Your task to perform on an android device: toggle airplane mode Image 0: 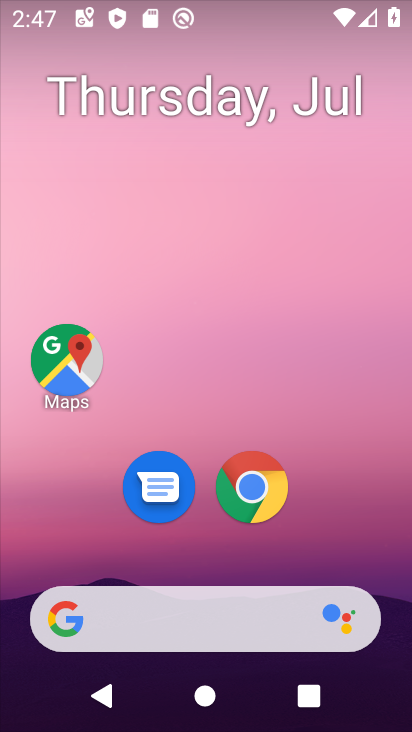
Step 0: drag from (364, 533) to (354, 144)
Your task to perform on an android device: toggle airplane mode Image 1: 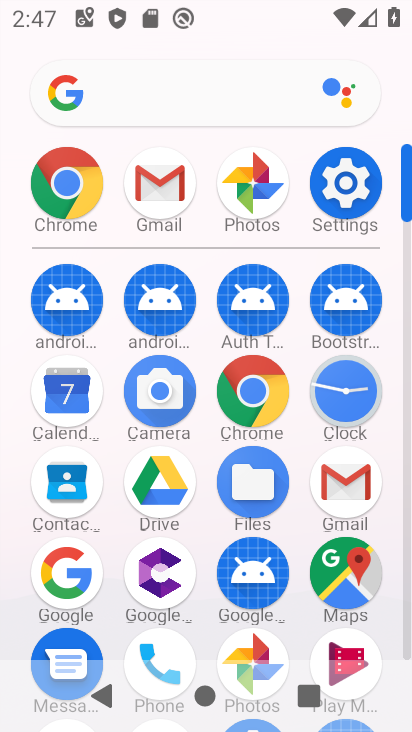
Step 1: click (345, 180)
Your task to perform on an android device: toggle airplane mode Image 2: 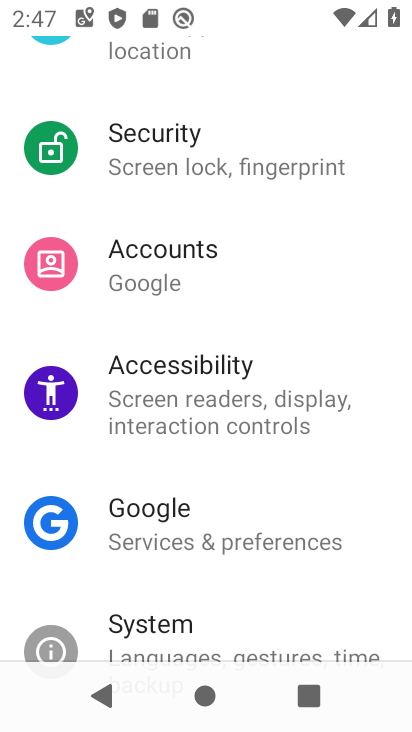
Step 2: drag from (361, 322) to (364, 368)
Your task to perform on an android device: toggle airplane mode Image 3: 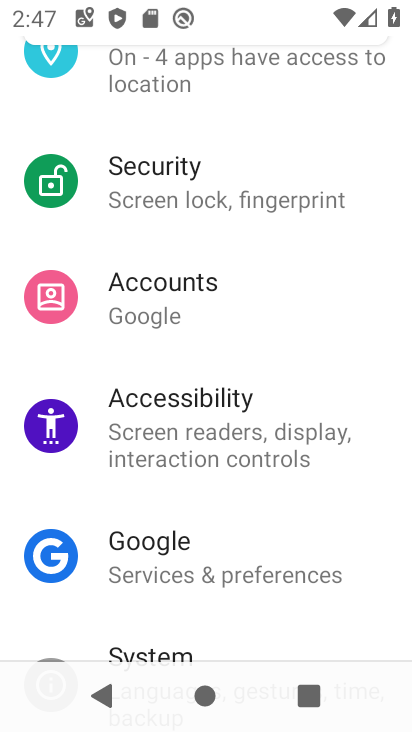
Step 3: drag from (360, 324) to (363, 376)
Your task to perform on an android device: toggle airplane mode Image 4: 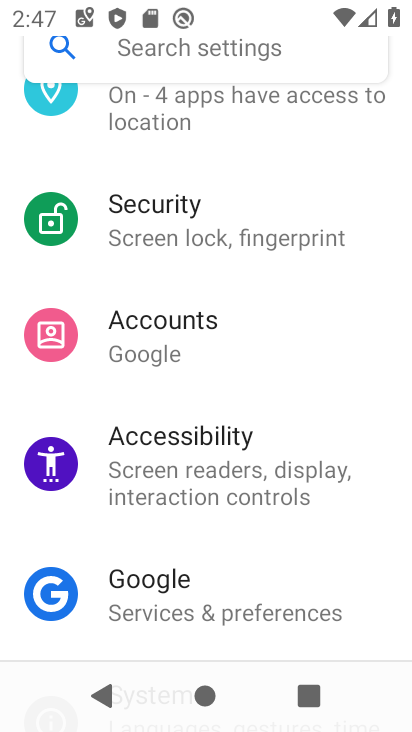
Step 4: drag from (363, 343) to (370, 393)
Your task to perform on an android device: toggle airplane mode Image 5: 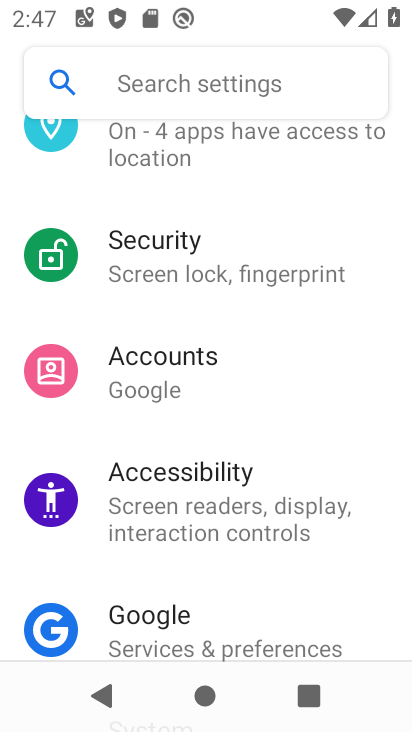
Step 5: drag from (372, 341) to (373, 407)
Your task to perform on an android device: toggle airplane mode Image 6: 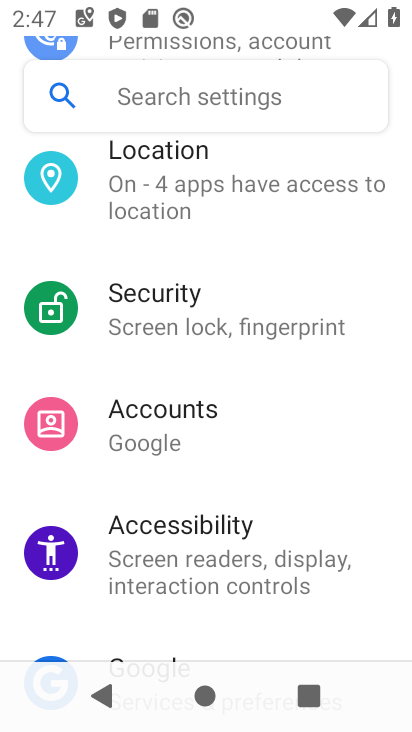
Step 6: drag from (370, 353) to (370, 421)
Your task to perform on an android device: toggle airplane mode Image 7: 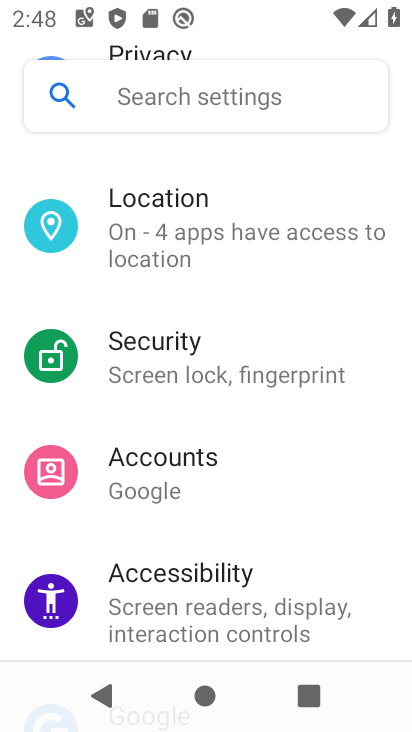
Step 7: drag from (370, 359) to (372, 424)
Your task to perform on an android device: toggle airplane mode Image 8: 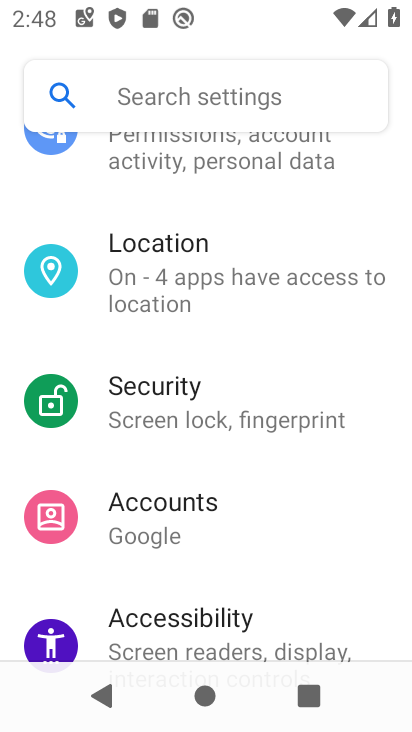
Step 8: drag from (372, 366) to (380, 433)
Your task to perform on an android device: toggle airplane mode Image 9: 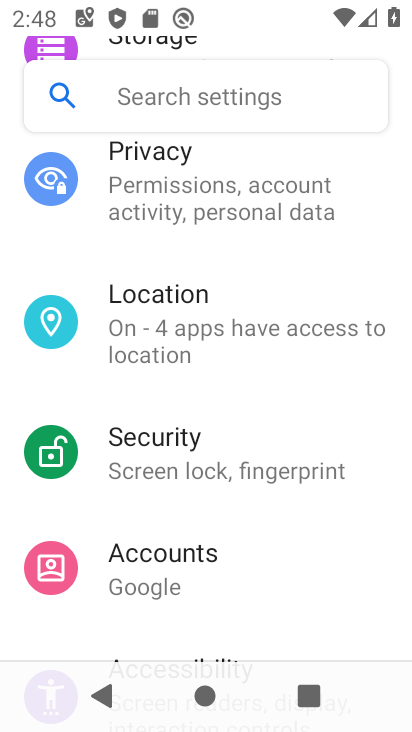
Step 9: drag from (376, 365) to (376, 430)
Your task to perform on an android device: toggle airplane mode Image 10: 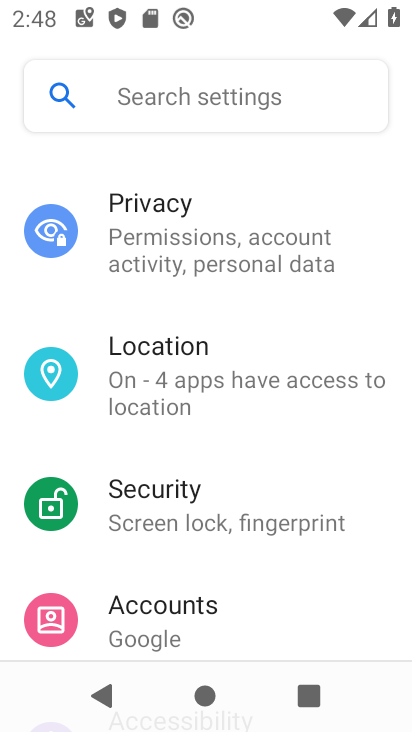
Step 10: drag from (376, 370) to (375, 444)
Your task to perform on an android device: toggle airplane mode Image 11: 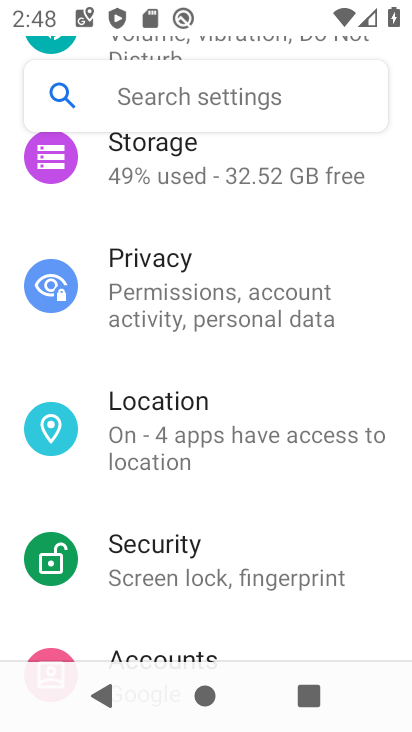
Step 11: drag from (380, 371) to (384, 453)
Your task to perform on an android device: toggle airplane mode Image 12: 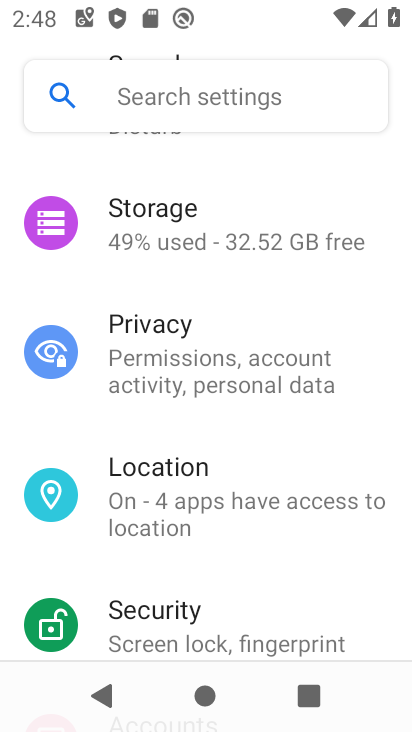
Step 12: drag from (370, 402) to (375, 471)
Your task to perform on an android device: toggle airplane mode Image 13: 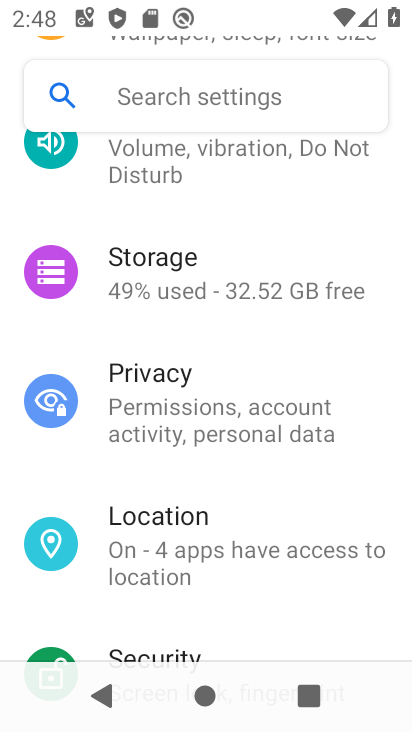
Step 13: drag from (365, 392) to (372, 483)
Your task to perform on an android device: toggle airplane mode Image 14: 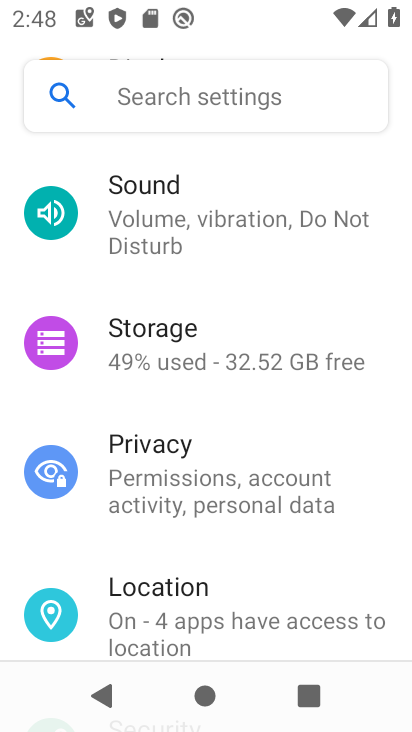
Step 14: drag from (368, 414) to (369, 485)
Your task to perform on an android device: toggle airplane mode Image 15: 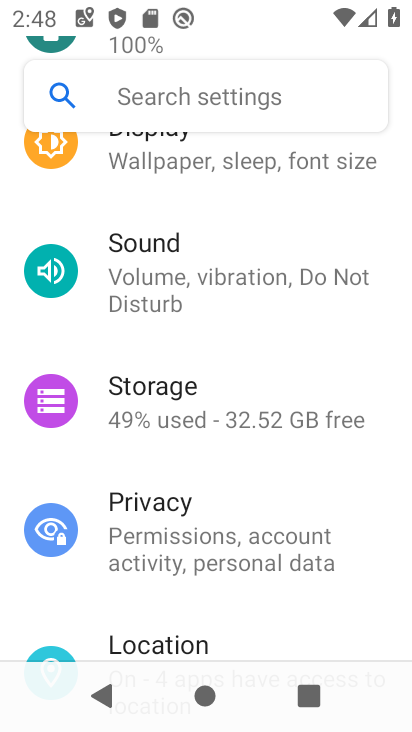
Step 15: drag from (371, 427) to (376, 500)
Your task to perform on an android device: toggle airplane mode Image 16: 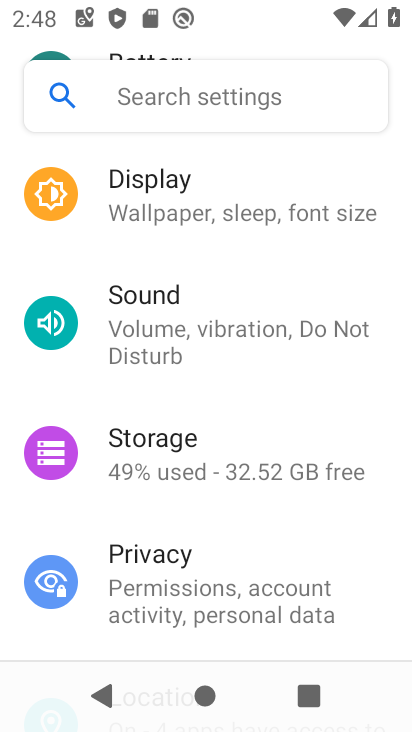
Step 16: drag from (378, 450) to (377, 526)
Your task to perform on an android device: toggle airplane mode Image 17: 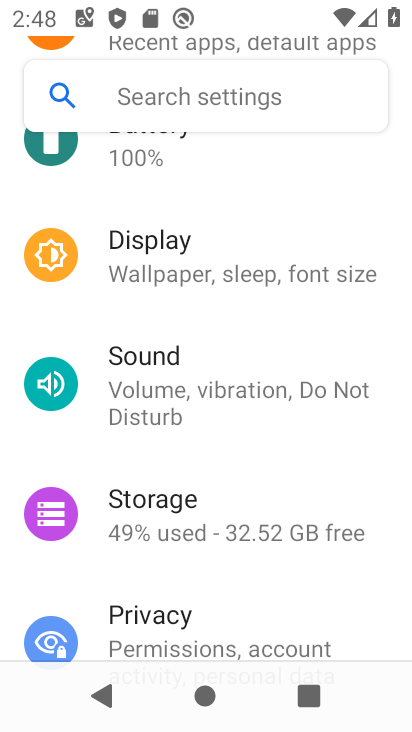
Step 17: drag from (371, 480) to (371, 541)
Your task to perform on an android device: toggle airplane mode Image 18: 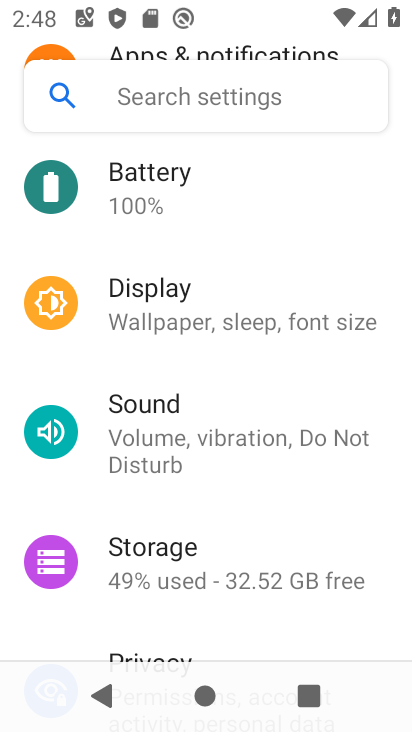
Step 18: drag from (365, 479) to (369, 556)
Your task to perform on an android device: toggle airplane mode Image 19: 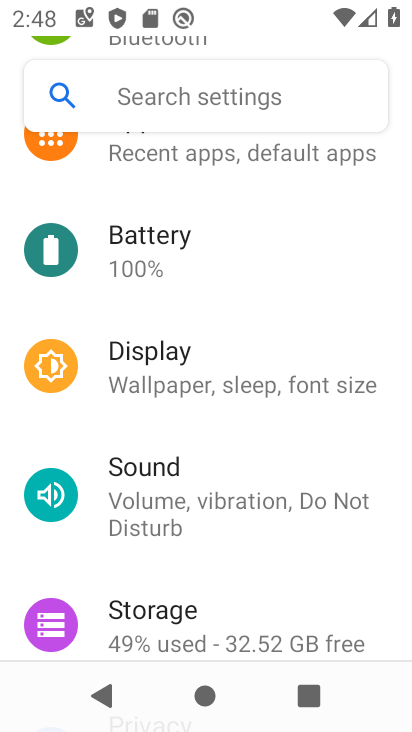
Step 19: drag from (369, 489) to (374, 568)
Your task to perform on an android device: toggle airplane mode Image 20: 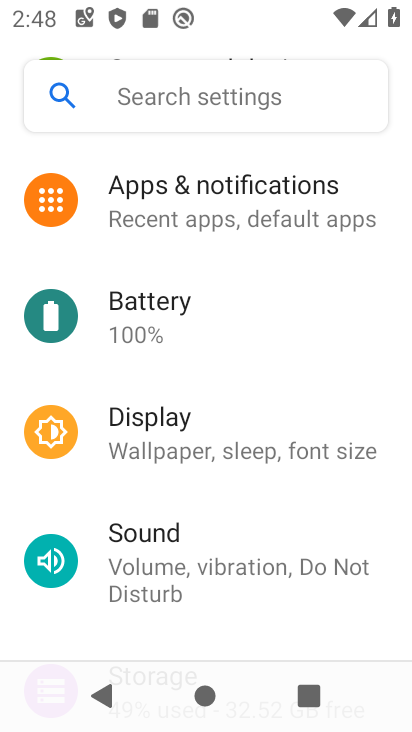
Step 20: drag from (377, 513) to (380, 590)
Your task to perform on an android device: toggle airplane mode Image 21: 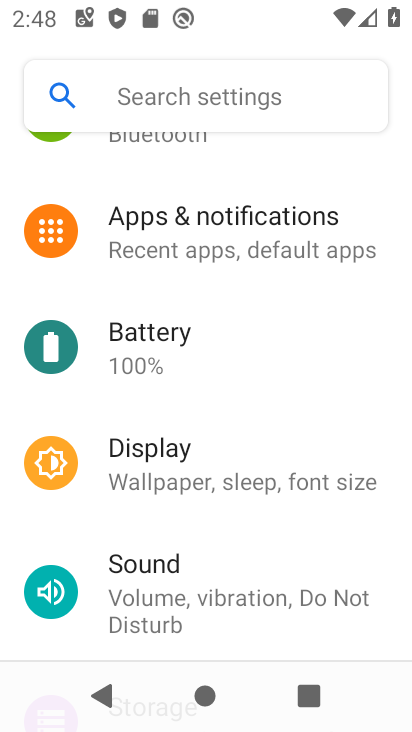
Step 21: drag from (380, 528) to (381, 606)
Your task to perform on an android device: toggle airplane mode Image 22: 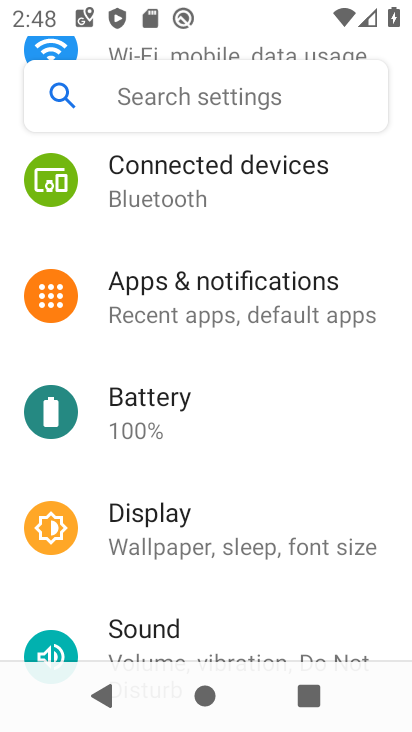
Step 22: drag from (381, 486) to (383, 561)
Your task to perform on an android device: toggle airplane mode Image 23: 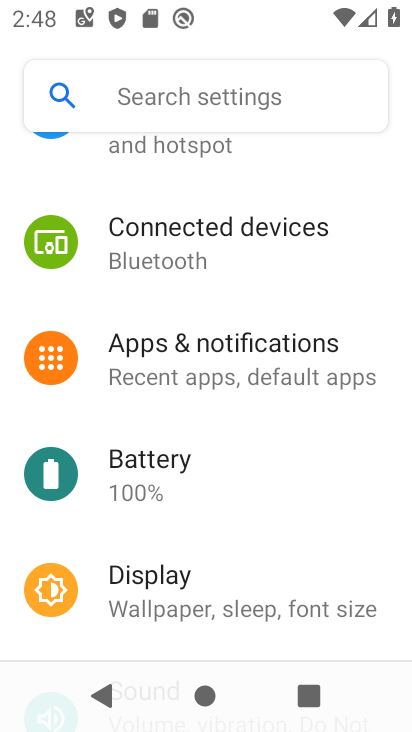
Step 23: drag from (384, 459) to (385, 547)
Your task to perform on an android device: toggle airplane mode Image 24: 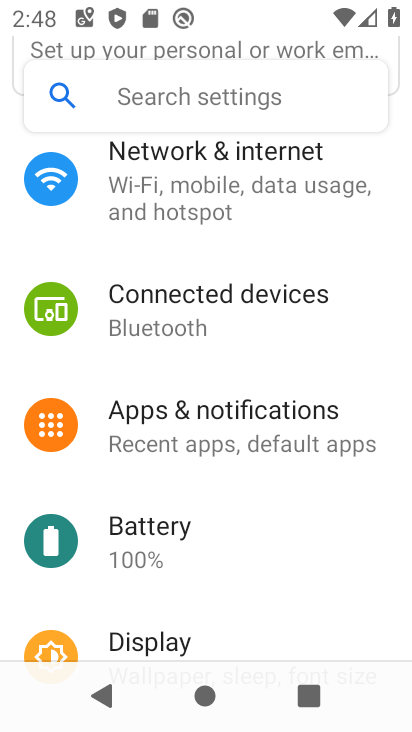
Step 24: drag from (394, 466) to (394, 541)
Your task to perform on an android device: toggle airplane mode Image 25: 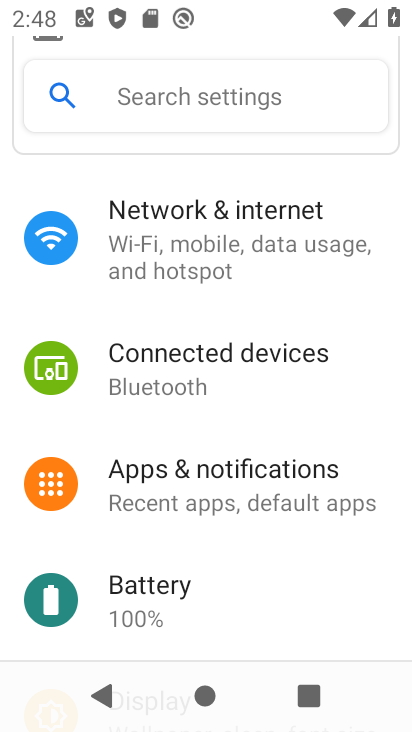
Step 25: drag from (382, 473) to (383, 551)
Your task to perform on an android device: toggle airplane mode Image 26: 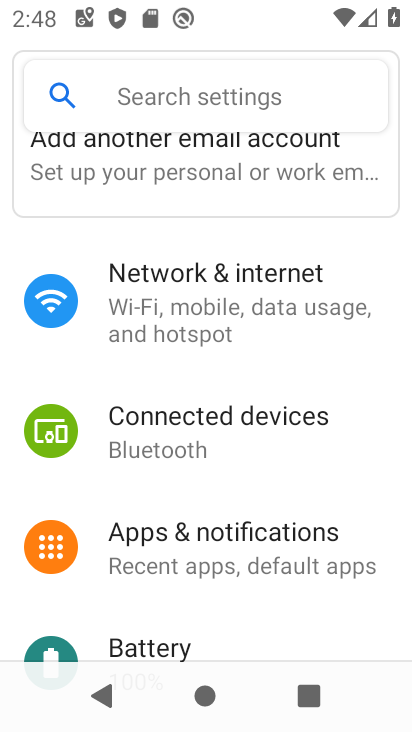
Step 26: drag from (383, 464) to (383, 548)
Your task to perform on an android device: toggle airplane mode Image 27: 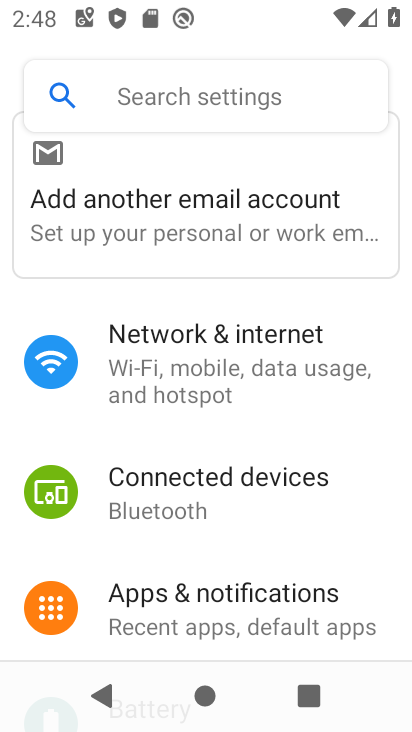
Step 27: drag from (377, 448) to (376, 545)
Your task to perform on an android device: toggle airplane mode Image 28: 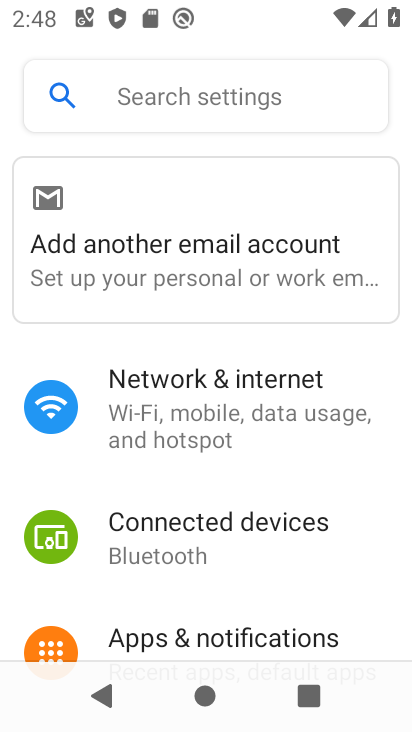
Step 28: drag from (376, 458) to (377, 576)
Your task to perform on an android device: toggle airplane mode Image 29: 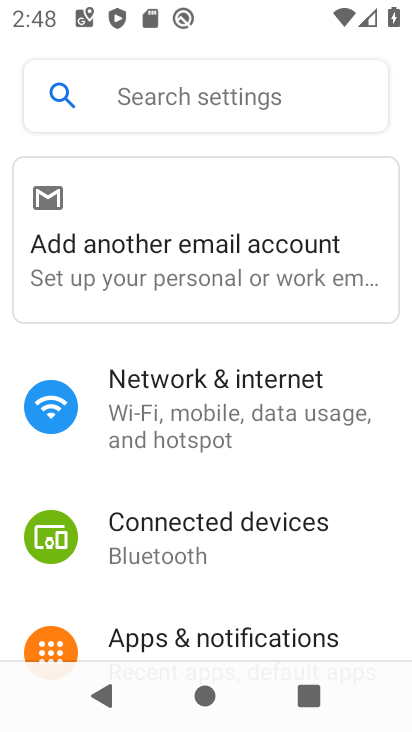
Step 29: click (359, 428)
Your task to perform on an android device: toggle airplane mode Image 30: 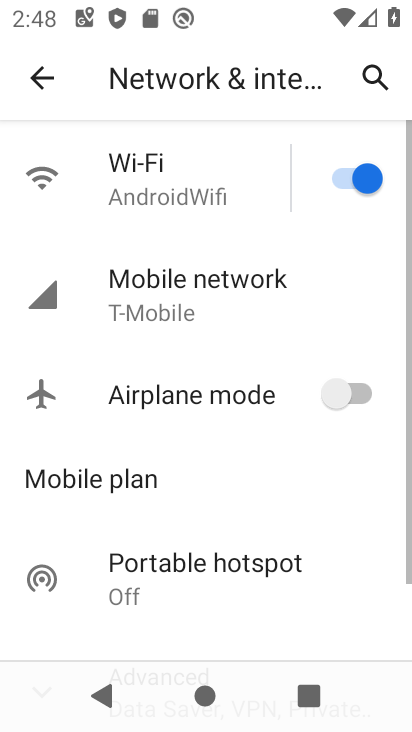
Step 30: click (354, 397)
Your task to perform on an android device: toggle airplane mode Image 31: 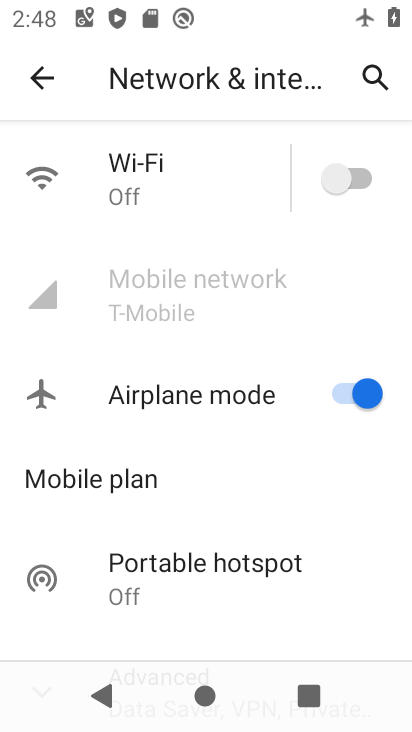
Step 31: task complete